Your task to perform on an android device: Open accessibility settings Image 0: 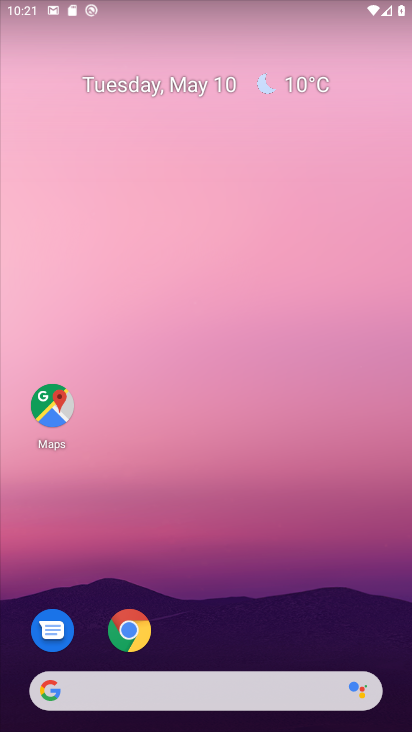
Step 0: drag from (229, 492) to (328, 12)
Your task to perform on an android device: Open accessibility settings Image 1: 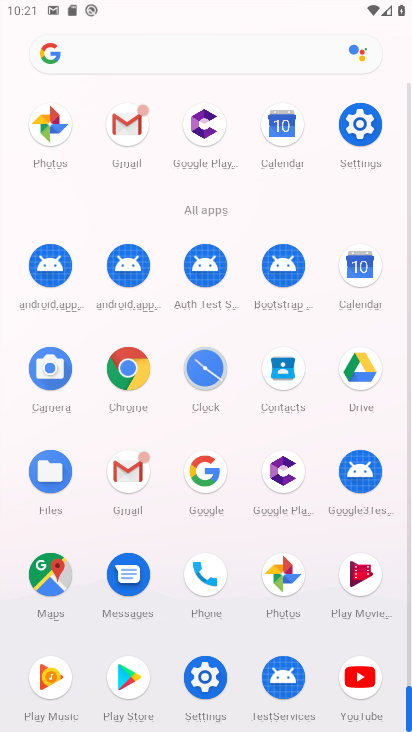
Step 1: click (368, 125)
Your task to perform on an android device: Open accessibility settings Image 2: 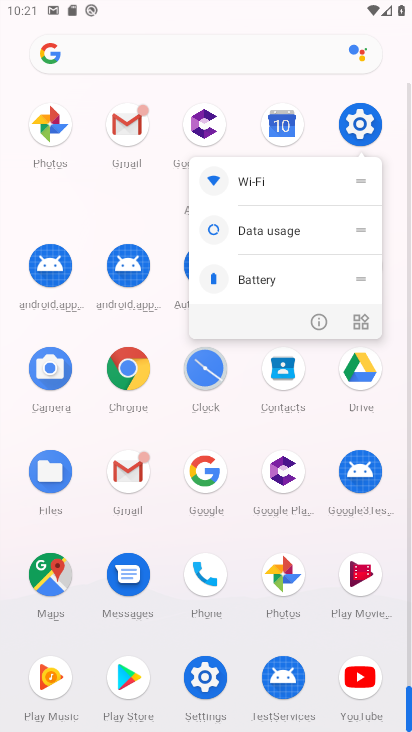
Step 2: click (368, 124)
Your task to perform on an android device: Open accessibility settings Image 3: 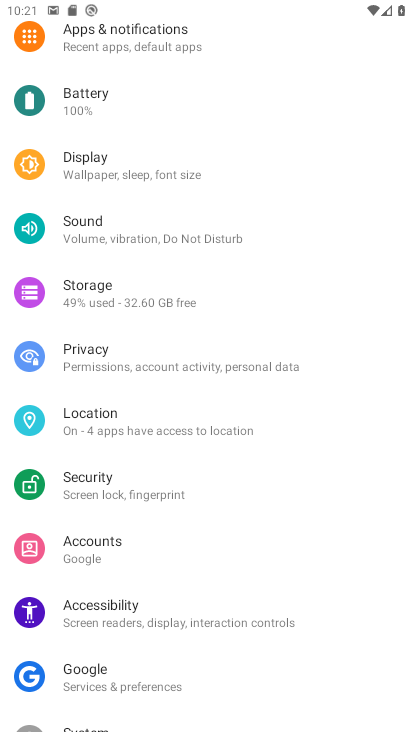
Step 3: click (180, 607)
Your task to perform on an android device: Open accessibility settings Image 4: 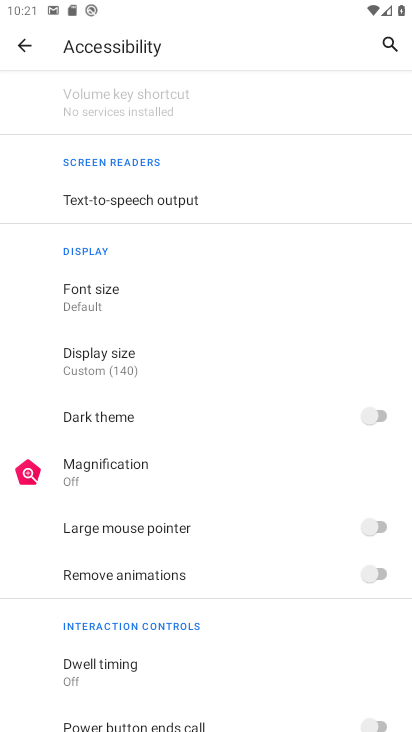
Step 4: task complete